Your task to perform on an android device: toggle notification dots Image 0: 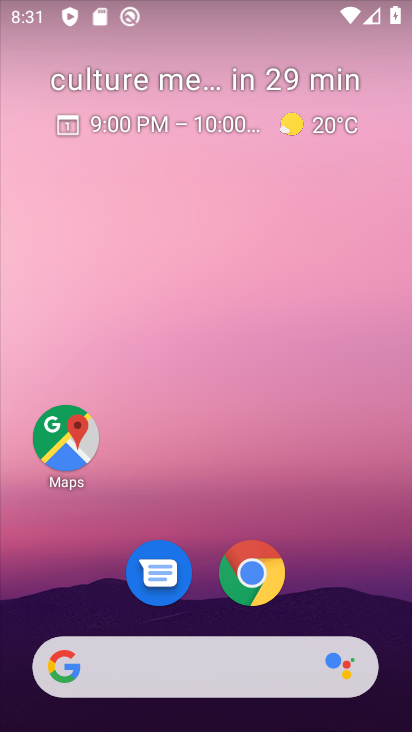
Step 0: drag from (202, 476) to (213, 77)
Your task to perform on an android device: toggle notification dots Image 1: 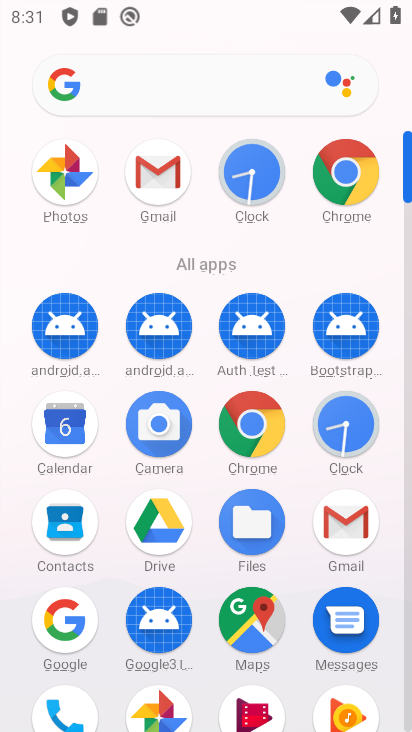
Step 1: drag from (180, 587) to (242, 101)
Your task to perform on an android device: toggle notification dots Image 2: 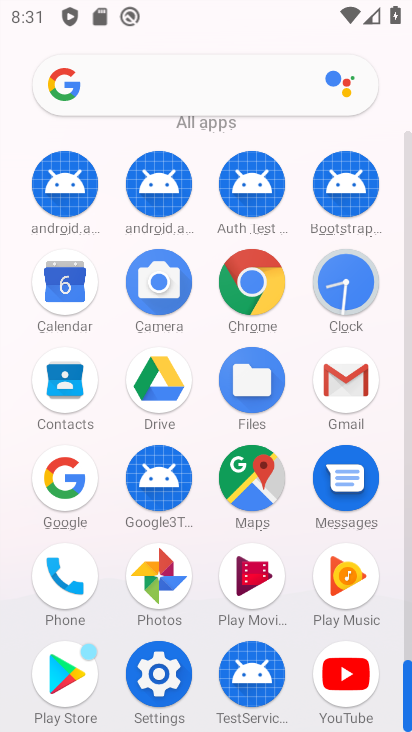
Step 2: click (147, 685)
Your task to perform on an android device: toggle notification dots Image 3: 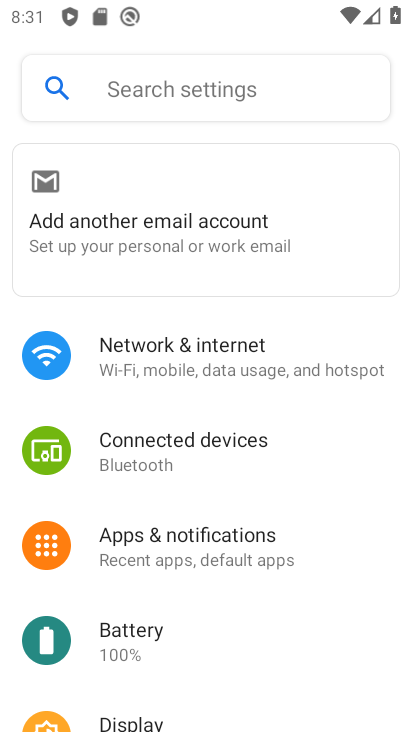
Step 3: click (233, 549)
Your task to perform on an android device: toggle notification dots Image 4: 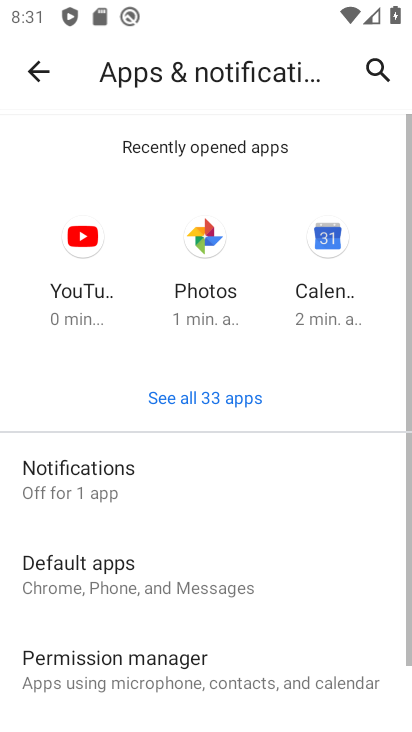
Step 4: click (126, 478)
Your task to perform on an android device: toggle notification dots Image 5: 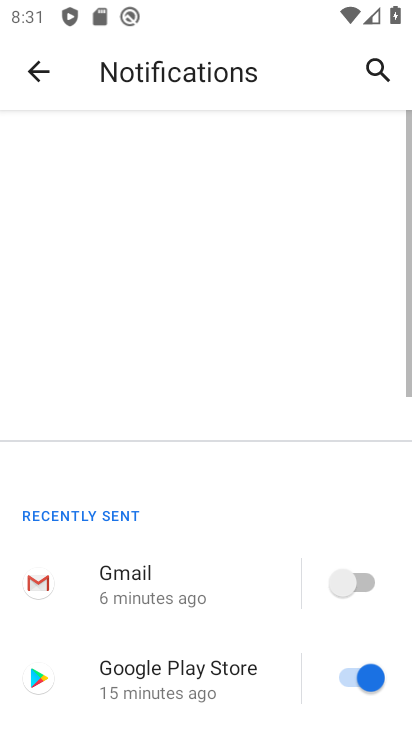
Step 5: drag from (164, 653) to (232, 163)
Your task to perform on an android device: toggle notification dots Image 6: 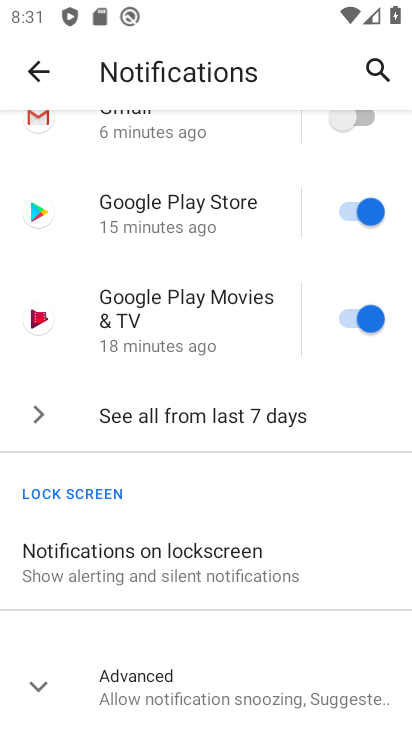
Step 6: drag from (183, 659) to (243, 102)
Your task to perform on an android device: toggle notification dots Image 7: 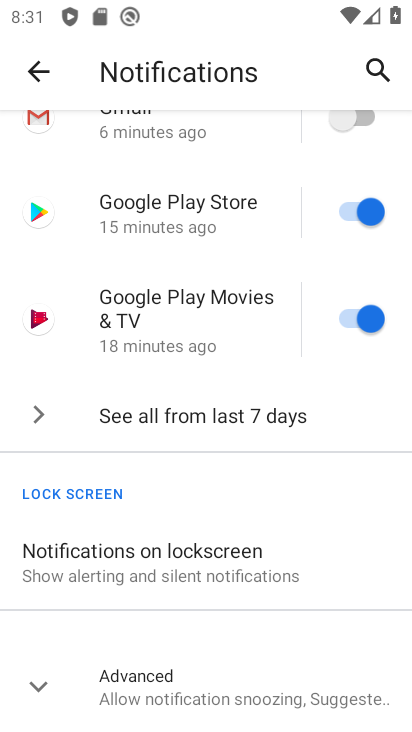
Step 7: click (164, 681)
Your task to perform on an android device: toggle notification dots Image 8: 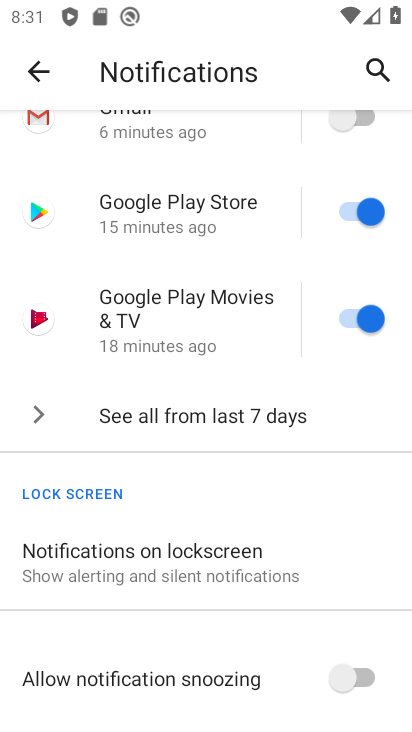
Step 8: drag from (161, 679) to (194, 167)
Your task to perform on an android device: toggle notification dots Image 9: 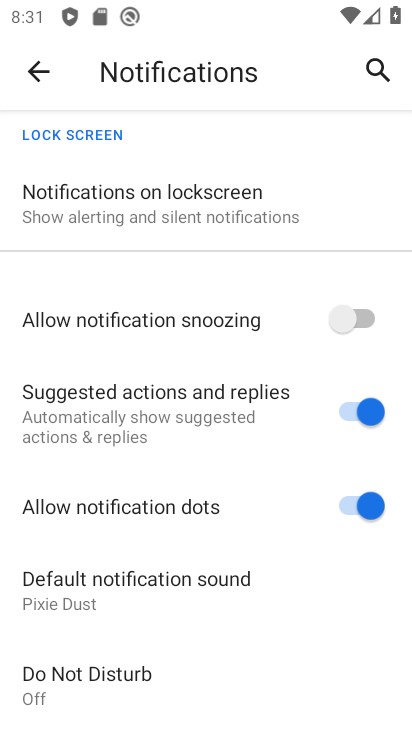
Step 9: click (354, 500)
Your task to perform on an android device: toggle notification dots Image 10: 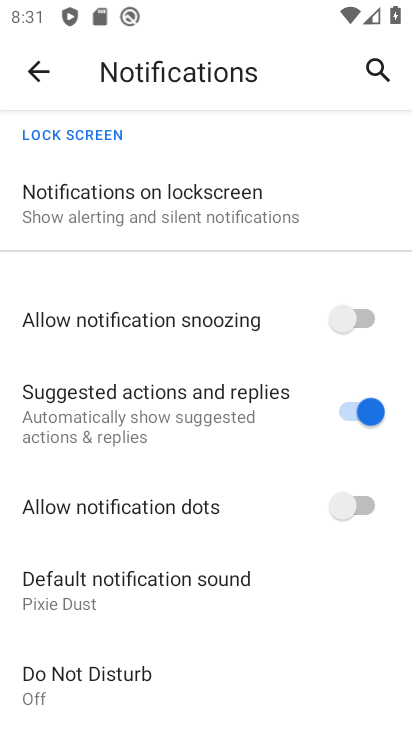
Step 10: task complete